Your task to perform on an android device: Search for razer blade on ebay.com, select the first entry, and add it to the cart. Image 0: 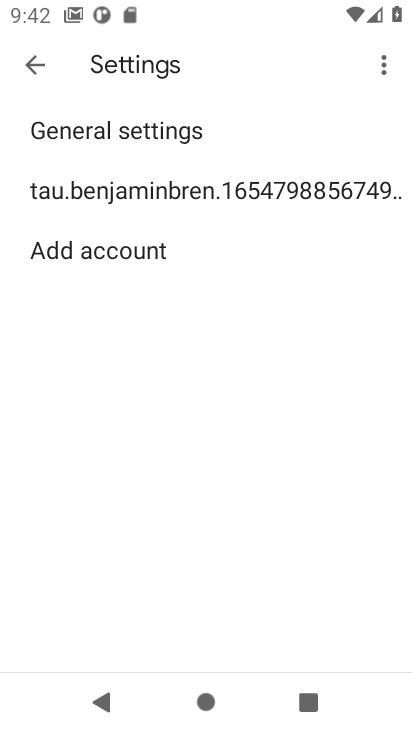
Step 0: press home button
Your task to perform on an android device: Search for razer blade on ebay.com, select the first entry, and add it to the cart. Image 1: 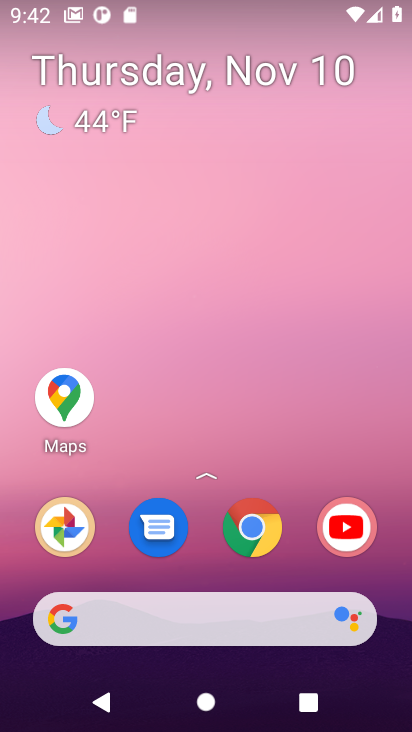
Step 1: drag from (154, 471) to (216, 83)
Your task to perform on an android device: Search for razer blade on ebay.com, select the first entry, and add it to the cart. Image 2: 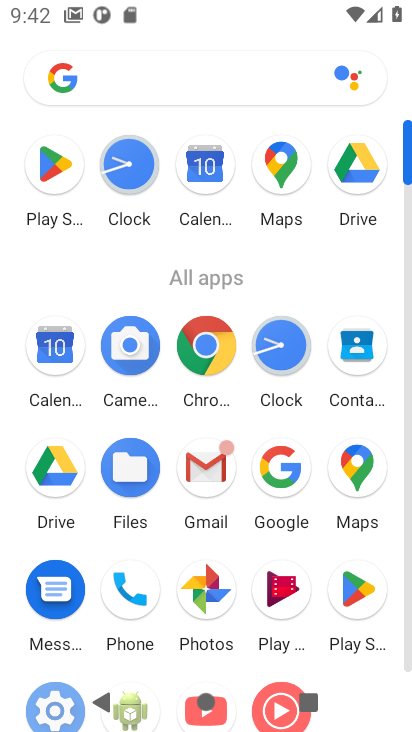
Step 2: click (180, 335)
Your task to perform on an android device: Search for razer blade on ebay.com, select the first entry, and add it to the cart. Image 3: 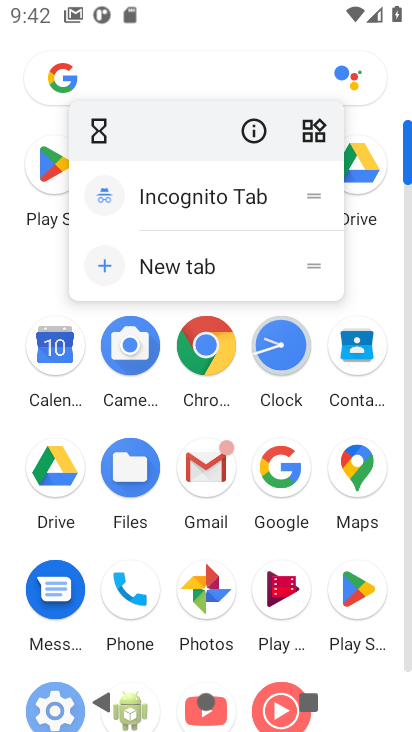
Step 3: click (199, 348)
Your task to perform on an android device: Search for razer blade on ebay.com, select the first entry, and add it to the cart. Image 4: 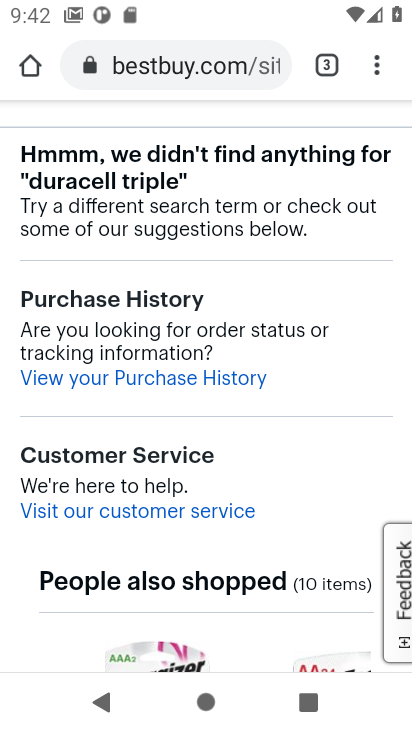
Step 4: click (216, 67)
Your task to perform on an android device: Search for razer blade on ebay.com, select the first entry, and add it to the cart. Image 5: 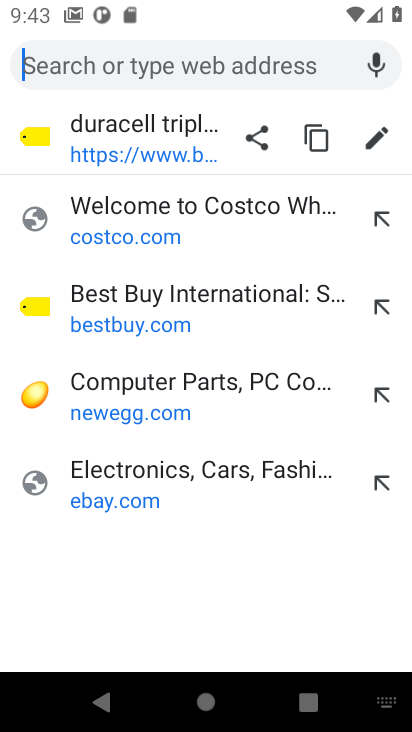
Step 5: type "ebay.com"
Your task to perform on an android device: Search for razer blade on ebay.com, select the first entry, and add it to the cart. Image 6: 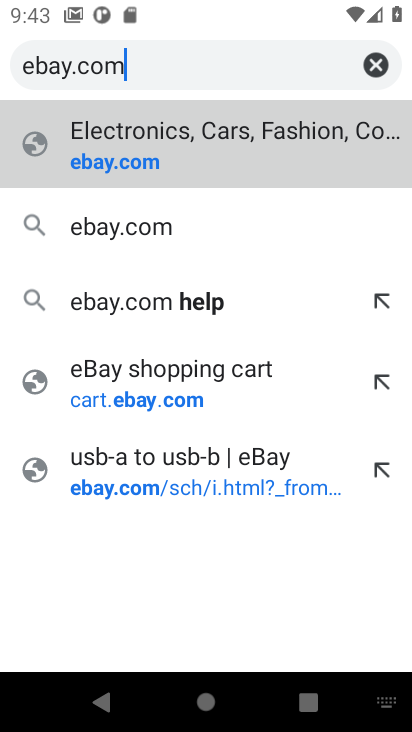
Step 6: press enter
Your task to perform on an android device: Search for razer blade on ebay.com, select the first entry, and add it to the cart. Image 7: 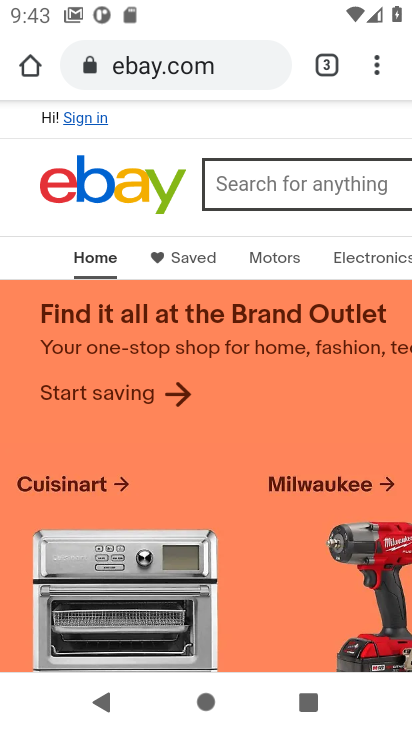
Step 7: click (270, 185)
Your task to perform on an android device: Search for razer blade on ebay.com, select the first entry, and add it to the cart. Image 8: 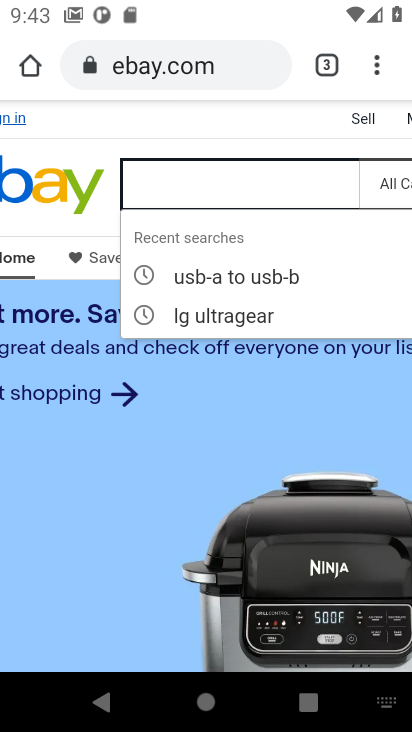
Step 8: type "razer blade"
Your task to perform on an android device: Search for razer blade on ebay.com, select the first entry, and add it to the cart. Image 9: 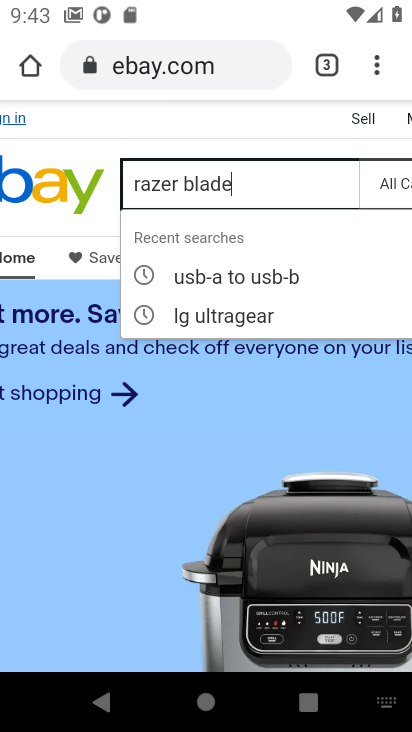
Step 9: press enter
Your task to perform on an android device: Search for razer blade on ebay.com, select the first entry, and add it to the cart. Image 10: 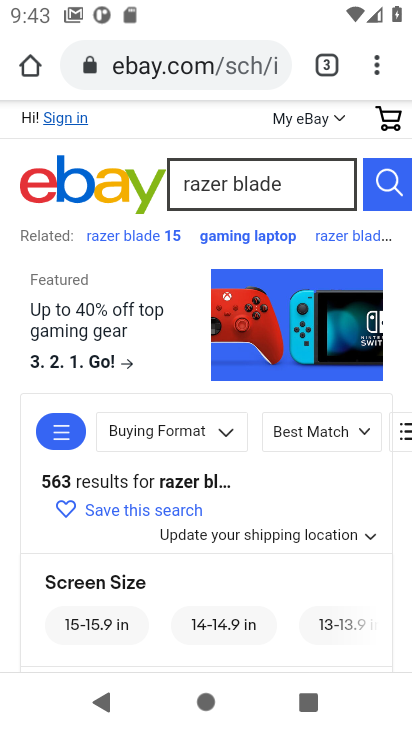
Step 10: drag from (155, 537) to (185, 219)
Your task to perform on an android device: Search for razer blade on ebay.com, select the first entry, and add it to the cart. Image 11: 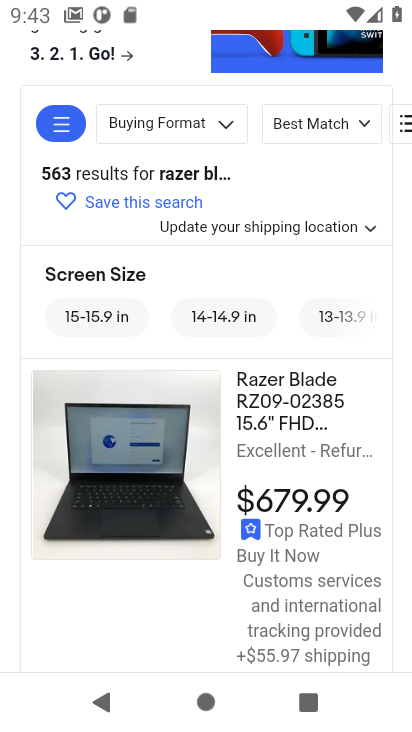
Step 11: click (260, 364)
Your task to perform on an android device: Search for razer blade on ebay.com, select the first entry, and add it to the cart. Image 12: 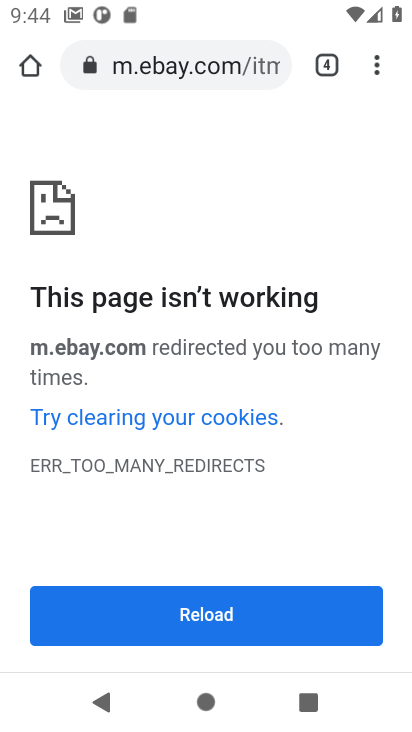
Step 12: click (194, 621)
Your task to perform on an android device: Search for razer blade on ebay.com, select the first entry, and add it to the cart. Image 13: 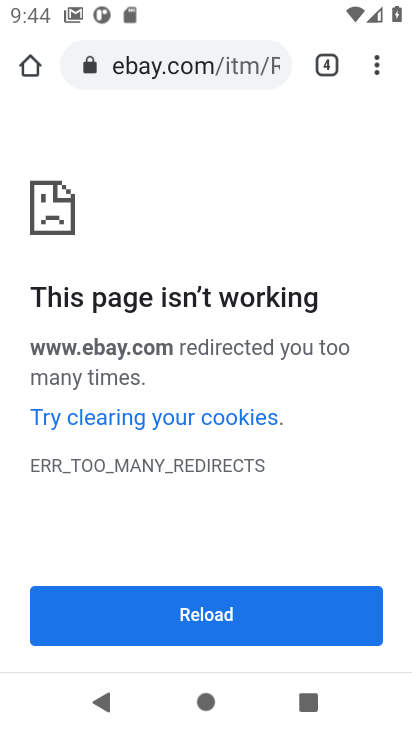
Step 13: task complete